Your task to perform on an android device: open wifi settings Image 0: 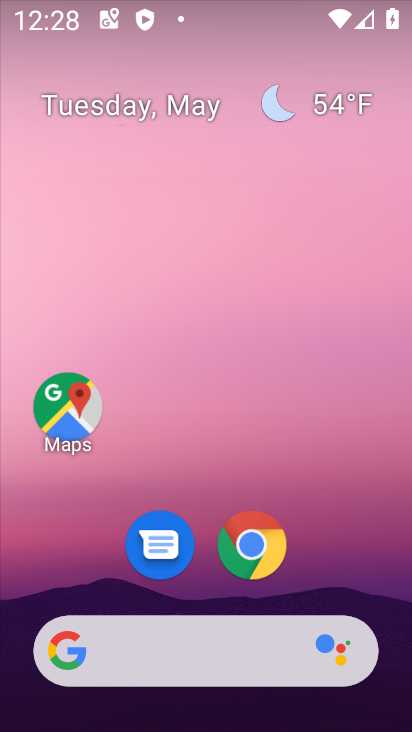
Step 0: drag from (327, 12) to (307, 495)
Your task to perform on an android device: open wifi settings Image 1: 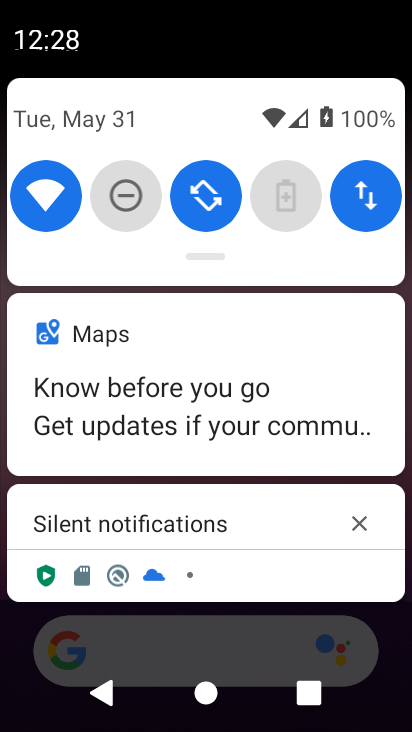
Step 1: click (46, 188)
Your task to perform on an android device: open wifi settings Image 2: 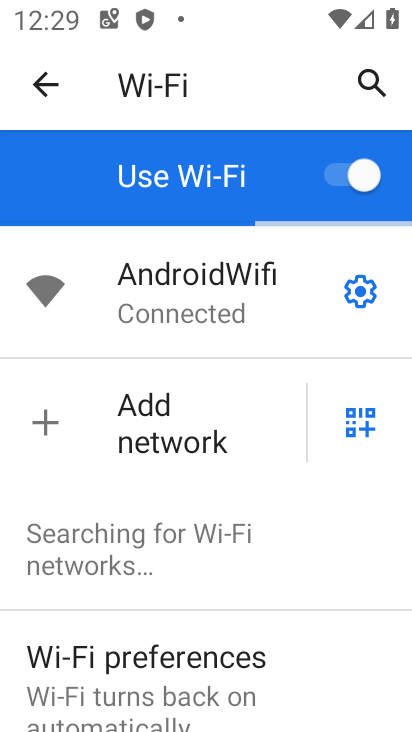
Step 2: task complete